Your task to perform on an android device: Open the calendar app, open the side menu, and click the "Day" option Image 0: 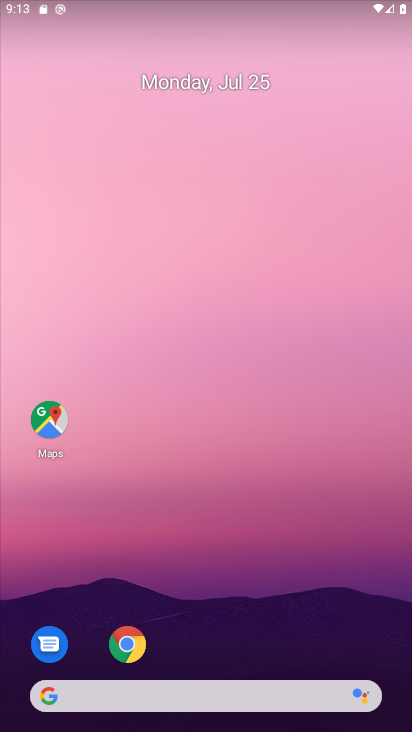
Step 0: drag from (397, 670) to (226, 84)
Your task to perform on an android device: Open the calendar app, open the side menu, and click the "Day" option Image 1: 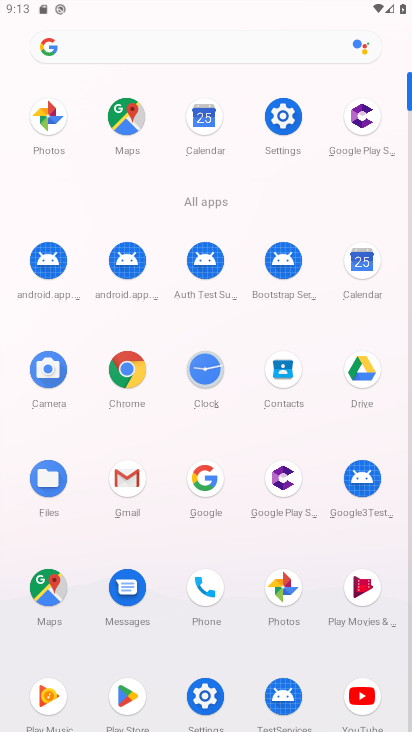
Step 1: click (354, 265)
Your task to perform on an android device: Open the calendar app, open the side menu, and click the "Day" option Image 2: 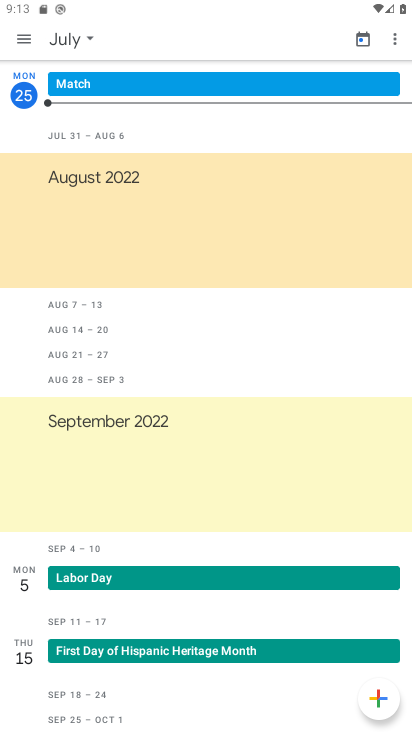
Step 2: click (16, 39)
Your task to perform on an android device: Open the calendar app, open the side menu, and click the "Day" option Image 3: 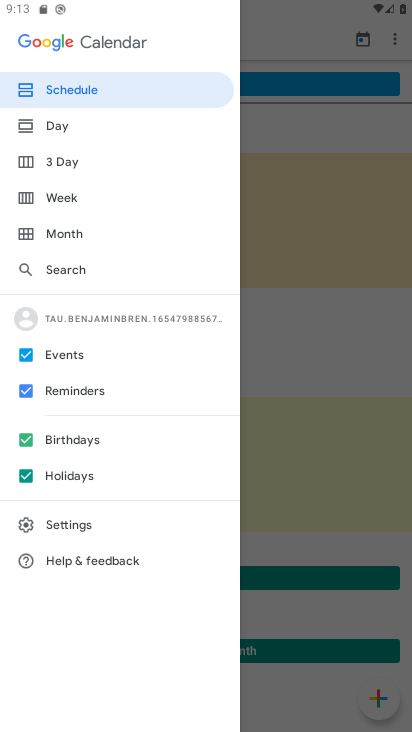
Step 3: click (72, 127)
Your task to perform on an android device: Open the calendar app, open the side menu, and click the "Day" option Image 4: 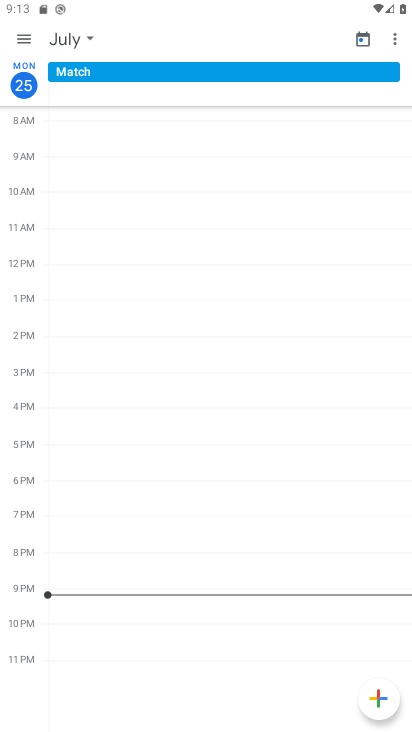
Step 4: task complete